Your task to perform on an android device: delete a single message in the gmail app Image 0: 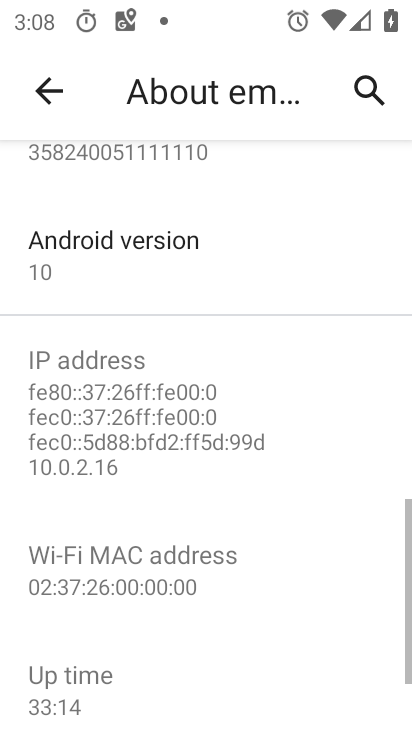
Step 0: task complete